Your task to perform on an android device: What's on my calendar tomorrow? Image 0: 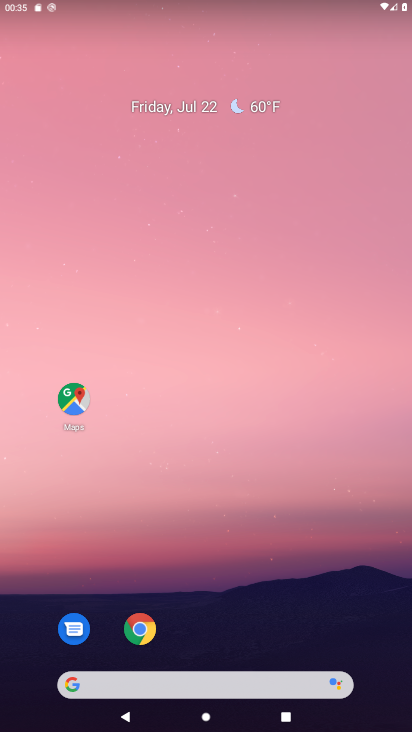
Step 0: drag from (168, 646) to (203, 197)
Your task to perform on an android device: What's on my calendar tomorrow? Image 1: 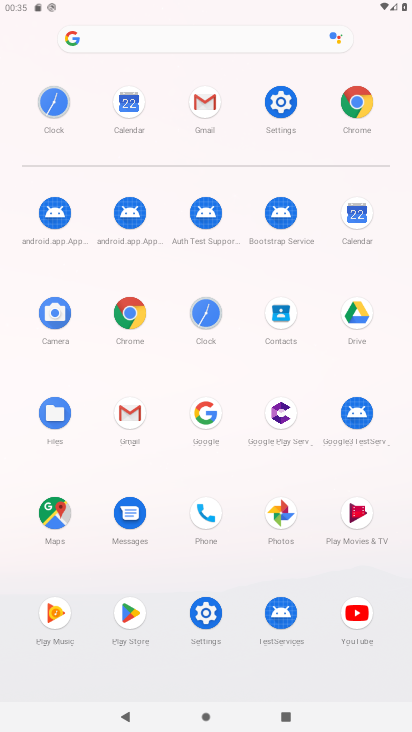
Step 1: click (370, 212)
Your task to perform on an android device: What's on my calendar tomorrow? Image 2: 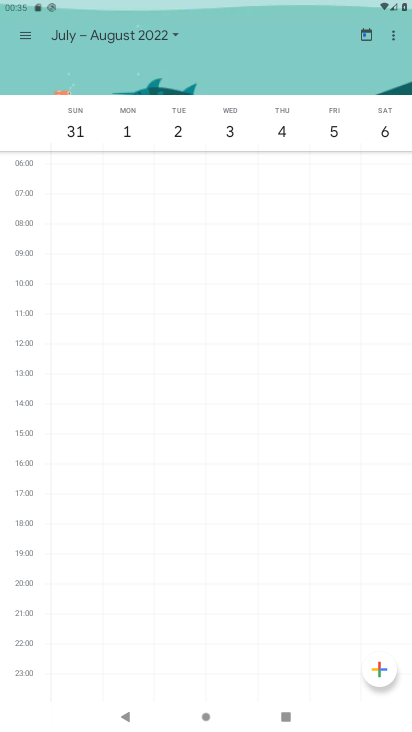
Step 2: click (38, 30)
Your task to perform on an android device: What's on my calendar tomorrow? Image 3: 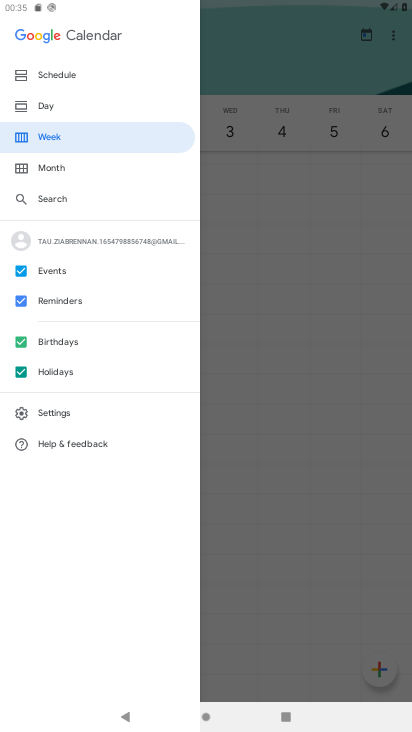
Step 3: click (64, 165)
Your task to perform on an android device: What's on my calendar tomorrow? Image 4: 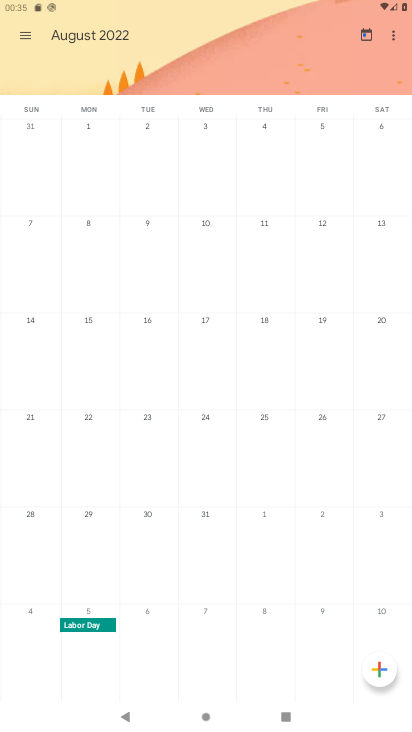
Step 4: drag from (31, 237) to (409, 332)
Your task to perform on an android device: What's on my calendar tomorrow? Image 5: 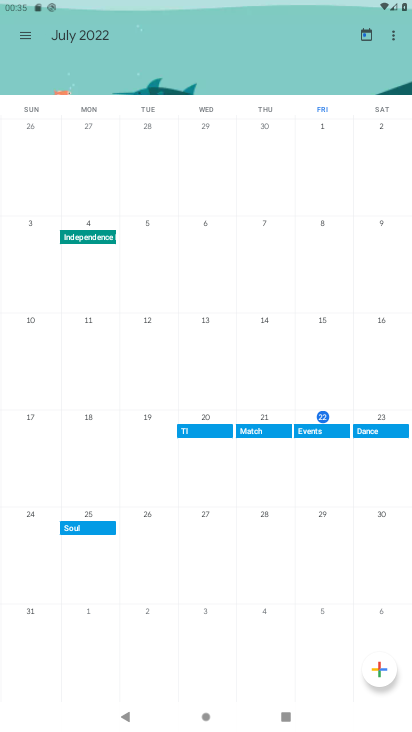
Step 5: click (372, 429)
Your task to perform on an android device: What's on my calendar tomorrow? Image 6: 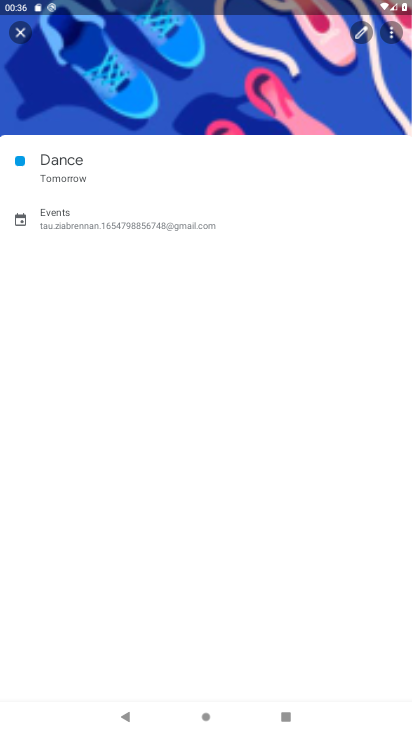
Step 6: task complete